Your task to perform on an android device: Show me the alarms in the clock app Image 0: 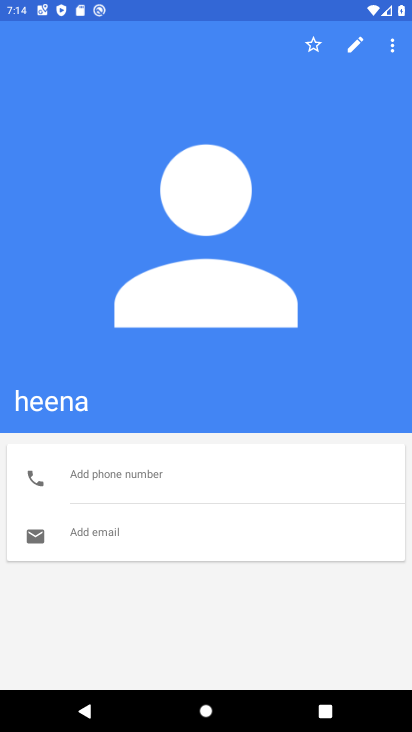
Step 0: press home button
Your task to perform on an android device: Show me the alarms in the clock app Image 1: 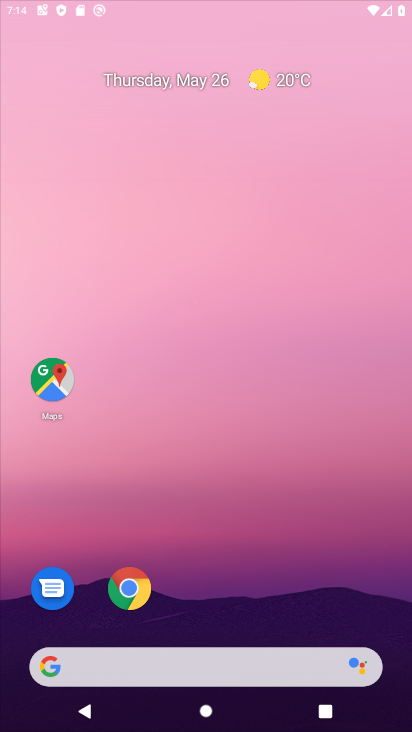
Step 1: drag from (377, 649) to (288, 39)
Your task to perform on an android device: Show me the alarms in the clock app Image 2: 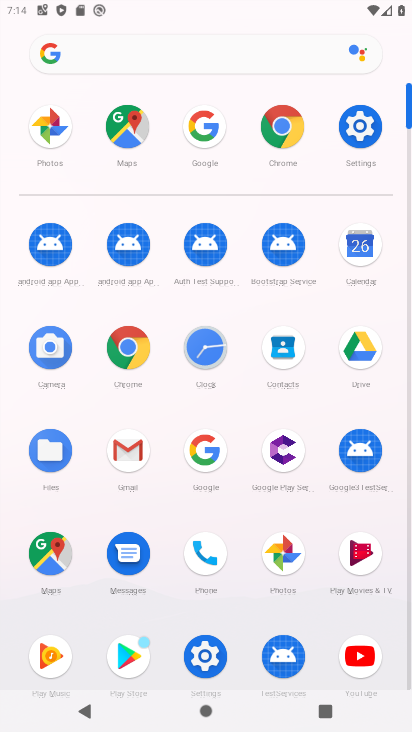
Step 2: click (203, 346)
Your task to perform on an android device: Show me the alarms in the clock app Image 3: 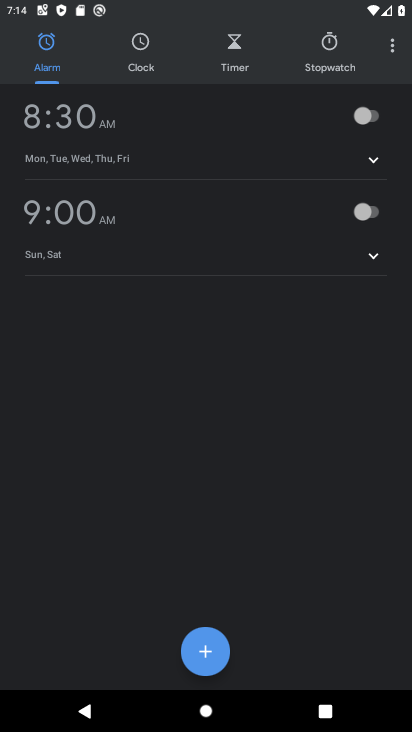
Step 3: task complete